Your task to perform on an android device: Open my contact list Image 0: 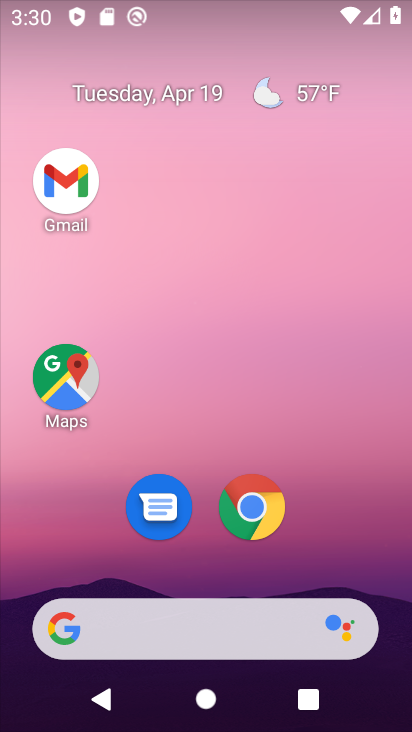
Step 0: drag from (218, 594) to (303, 251)
Your task to perform on an android device: Open my contact list Image 1: 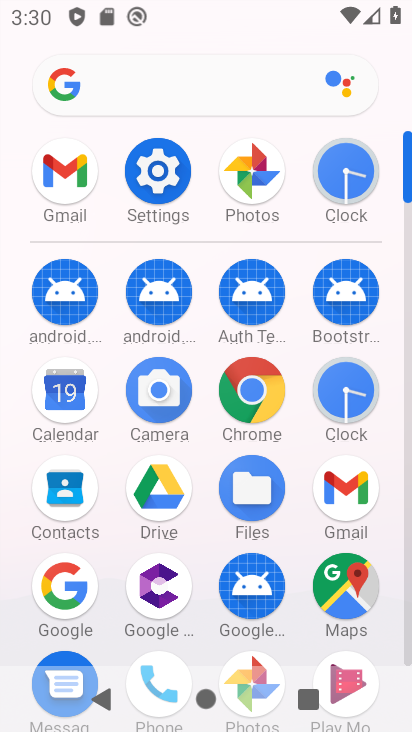
Step 1: click (61, 495)
Your task to perform on an android device: Open my contact list Image 2: 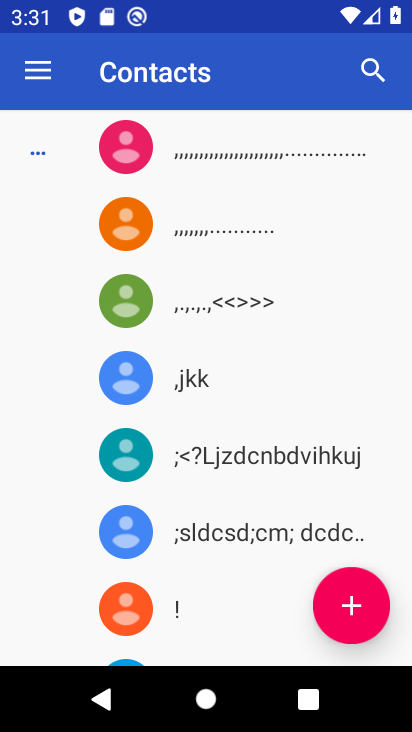
Step 2: task complete